Your task to perform on an android device: Open Android settings Image 0: 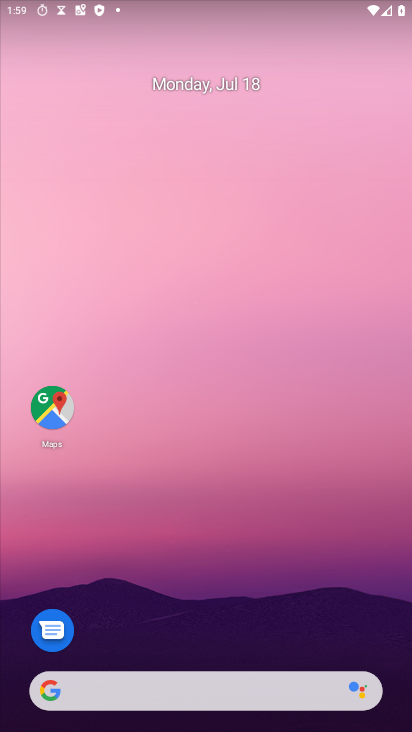
Step 0: drag from (293, 685) to (208, 149)
Your task to perform on an android device: Open Android settings Image 1: 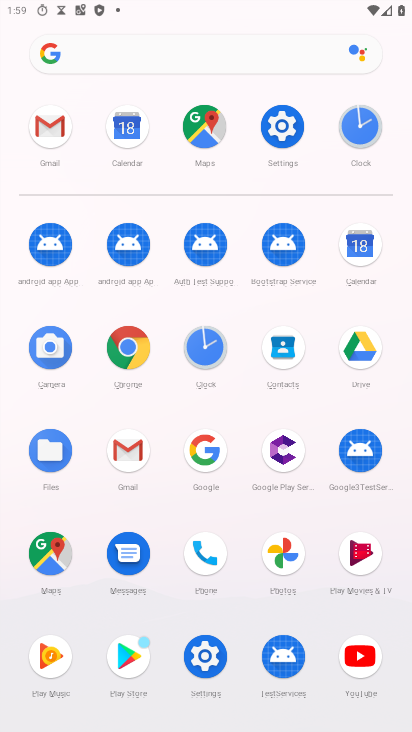
Step 1: click (274, 117)
Your task to perform on an android device: Open Android settings Image 2: 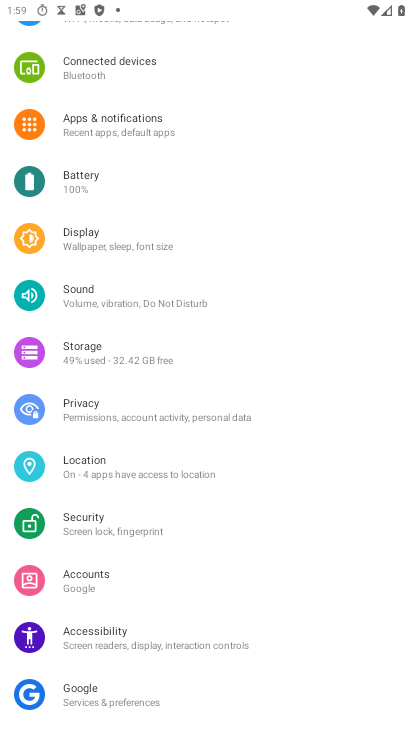
Step 2: drag from (119, 609) to (152, 205)
Your task to perform on an android device: Open Android settings Image 3: 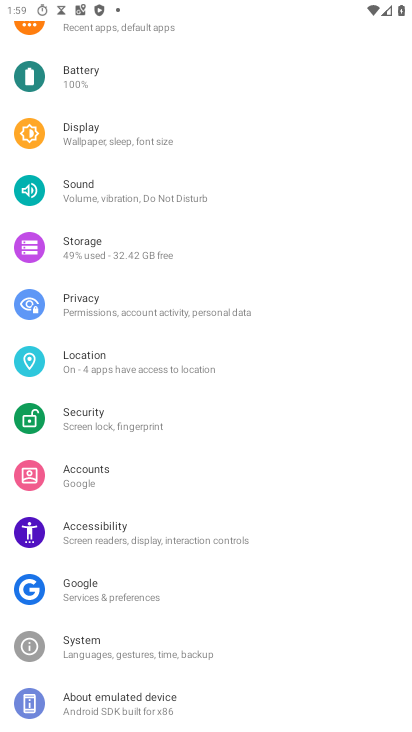
Step 3: click (116, 707)
Your task to perform on an android device: Open Android settings Image 4: 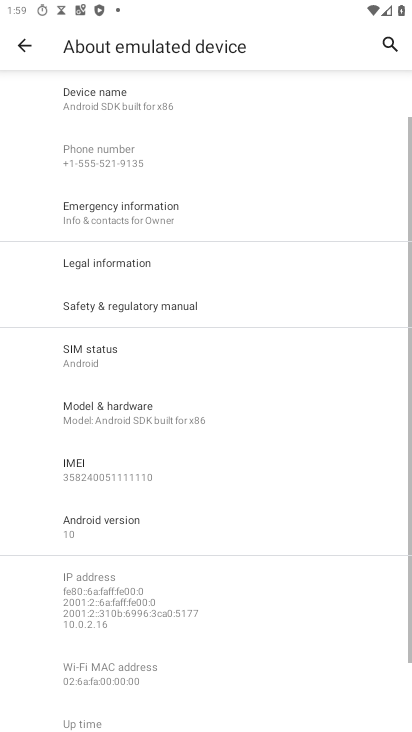
Step 4: task complete